Your task to perform on an android device: What's the weather going to be this weekend? Image 0: 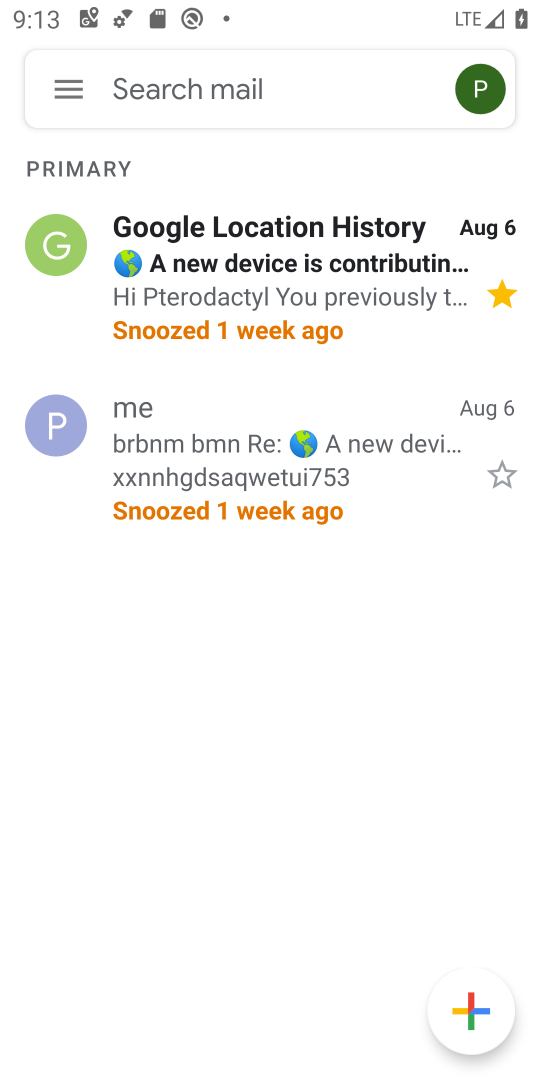
Step 0: press home button
Your task to perform on an android device: What's the weather going to be this weekend? Image 1: 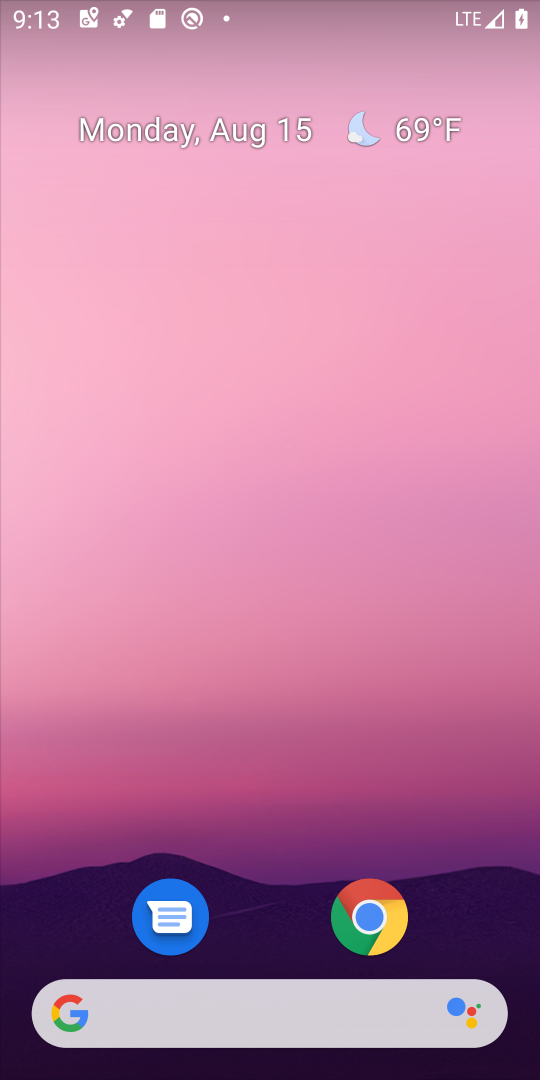
Step 1: click (420, 133)
Your task to perform on an android device: What's the weather going to be this weekend? Image 2: 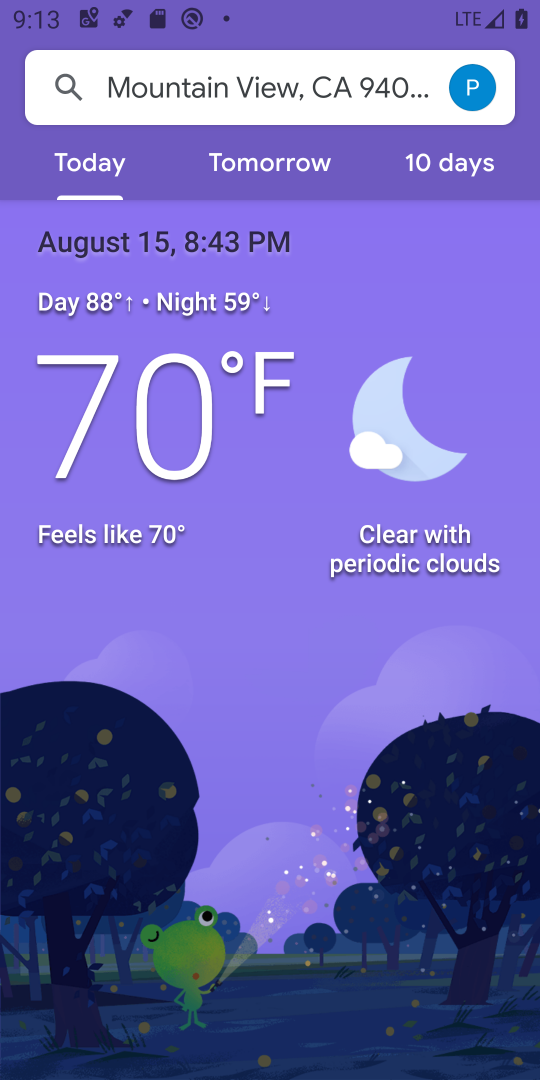
Step 2: click (438, 154)
Your task to perform on an android device: What's the weather going to be this weekend? Image 3: 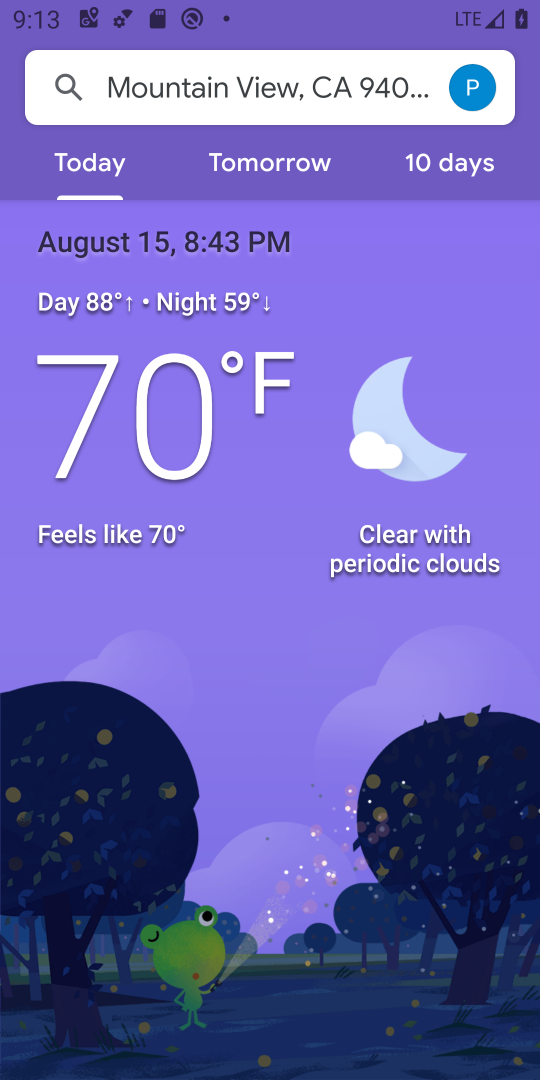
Step 3: click (438, 153)
Your task to perform on an android device: What's the weather going to be this weekend? Image 4: 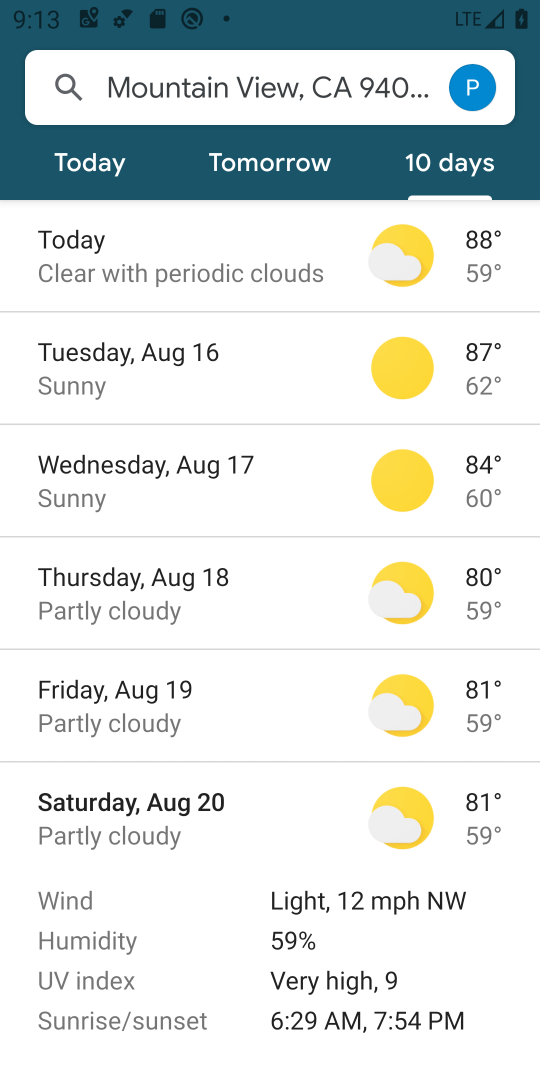
Step 4: task complete